Your task to perform on an android device: Play the last video I watched on Youtube Image 0: 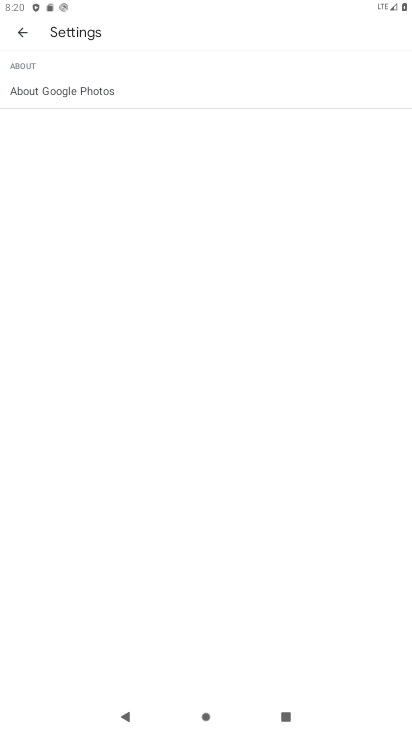
Step 0: press home button
Your task to perform on an android device: Play the last video I watched on Youtube Image 1: 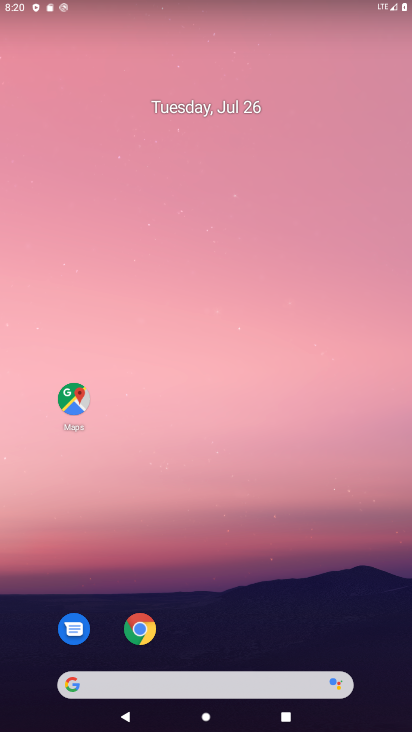
Step 1: drag from (215, 655) to (218, 109)
Your task to perform on an android device: Play the last video I watched on Youtube Image 2: 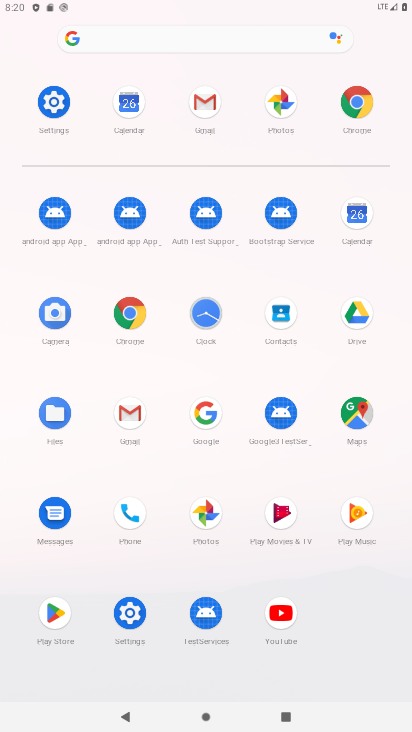
Step 2: click (286, 616)
Your task to perform on an android device: Play the last video I watched on Youtube Image 3: 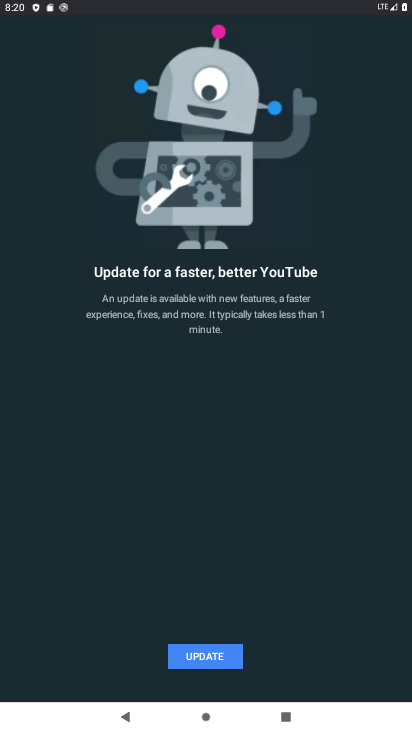
Step 3: click (226, 648)
Your task to perform on an android device: Play the last video I watched on Youtube Image 4: 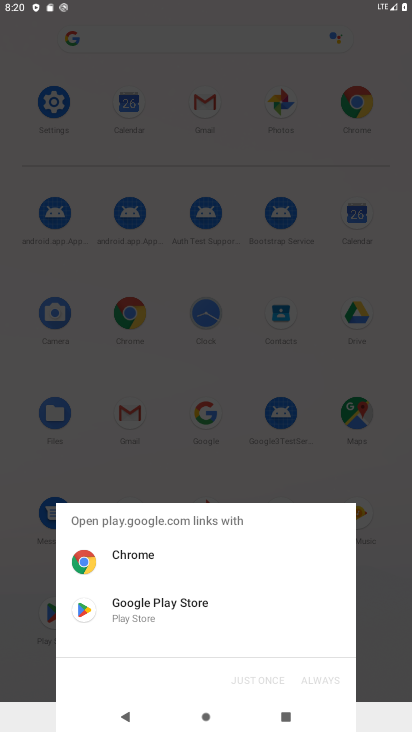
Step 4: click (193, 617)
Your task to perform on an android device: Play the last video I watched on Youtube Image 5: 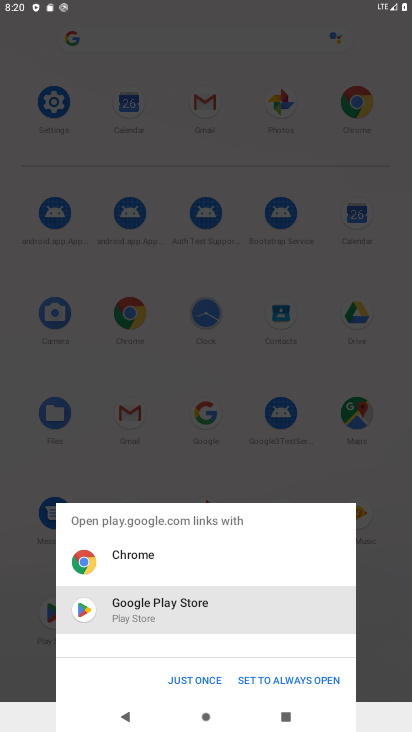
Step 5: click (259, 678)
Your task to perform on an android device: Play the last video I watched on Youtube Image 6: 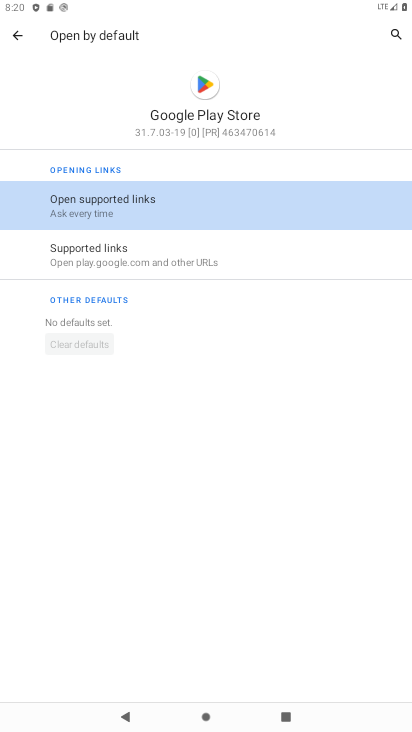
Step 6: click (20, 34)
Your task to perform on an android device: Play the last video I watched on Youtube Image 7: 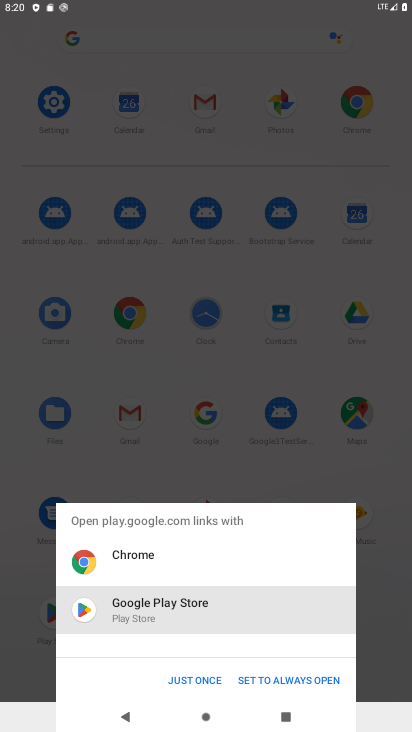
Step 7: click (182, 675)
Your task to perform on an android device: Play the last video I watched on Youtube Image 8: 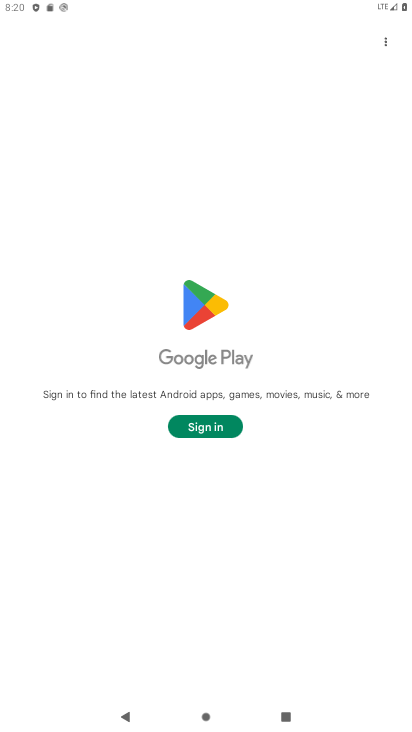
Step 8: task complete